Your task to perform on an android device: delete a single message in the gmail app Image 0: 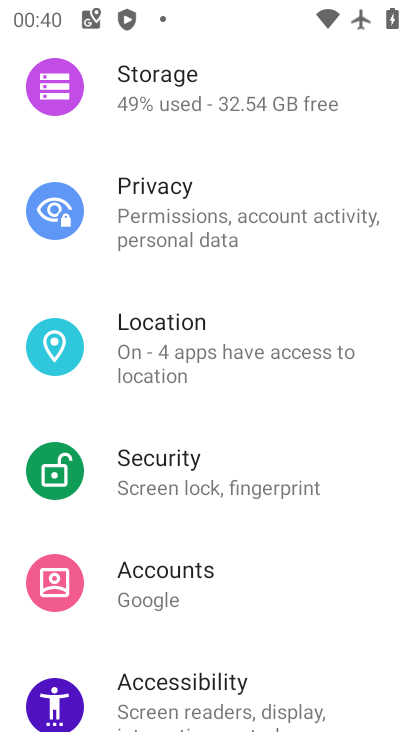
Step 0: press home button
Your task to perform on an android device: delete a single message in the gmail app Image 1: 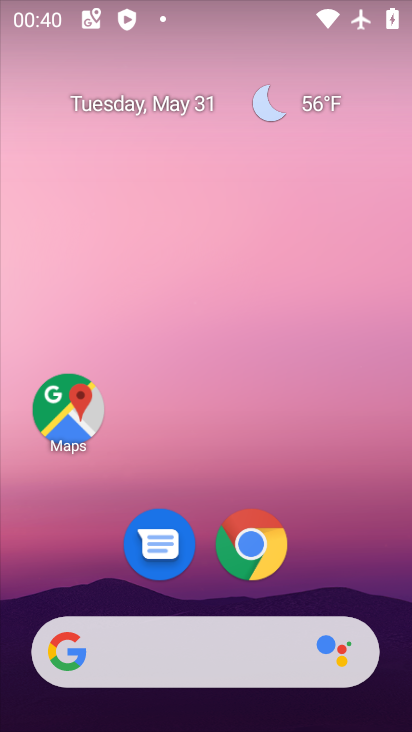
Step 1: drag from (334, 525) to (165, 15)
Your task to perform on an android device: delete a single message in the gmail app Image 2: 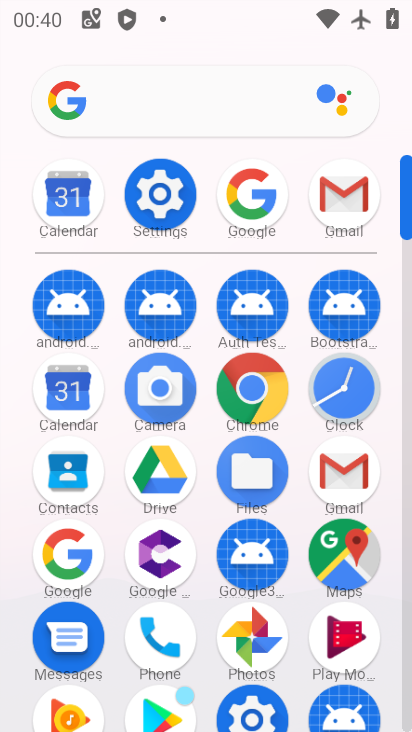
Step 2: click (347, 198)
Your task to perform on an android device: delete a single message in the gmail app Image 3: 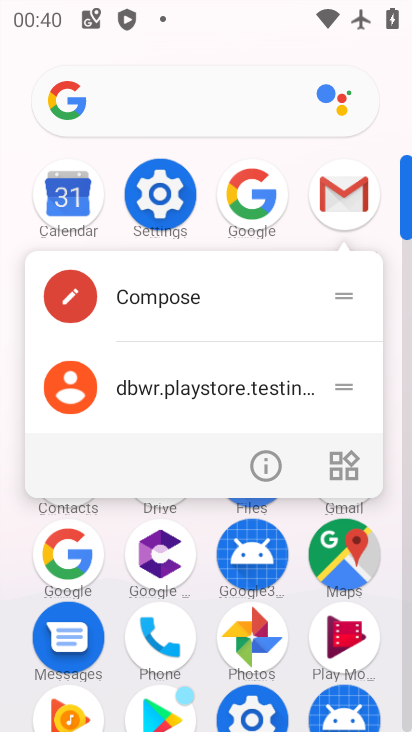
Step 3: click (349, 186)
Your task to perform on an android device: delete a single message in the gmail app Image 4: 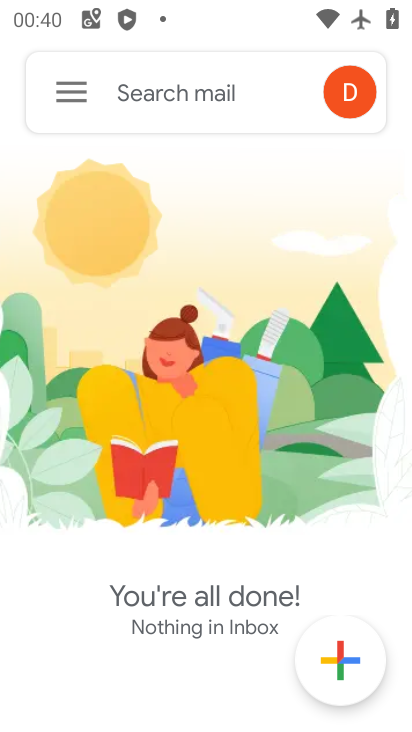
Step 4: click (349, 186)
Your task to perform on an android device: delete a single message in the gmail app Image 5: 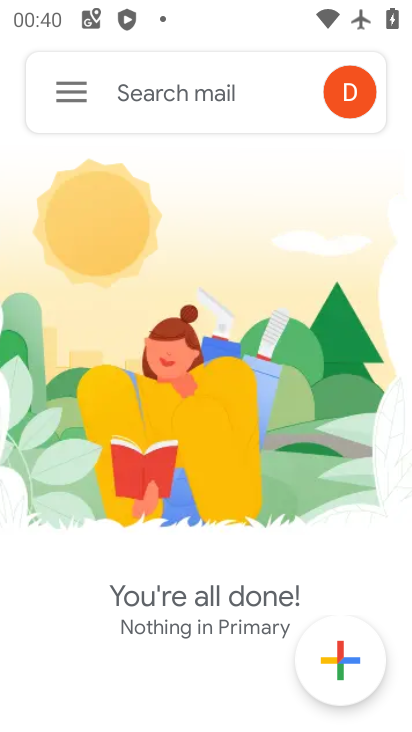
Step 5: click (71, 97)
Your task to perform on an android device: delete a single message in the gmail app Image 6: 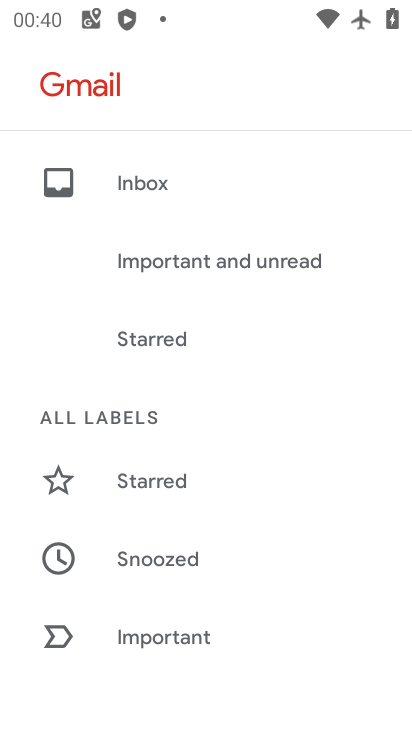
Step 6: drag from (181, 595) to (135, 357)
Your task to perform on an android device: delete a single message in the gmail app Image 7: 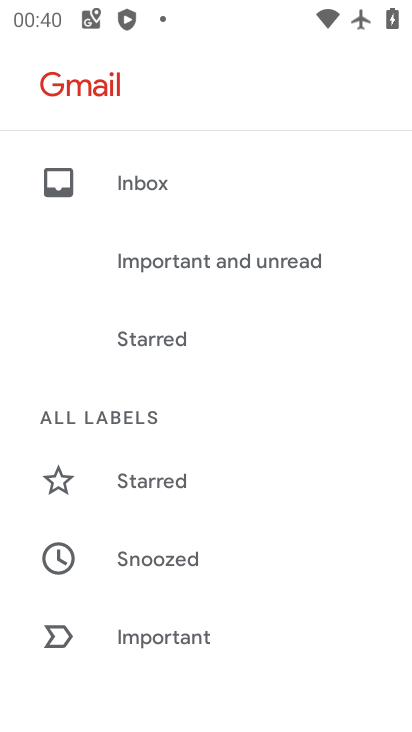
Step 7: drag from (212, 514) to (211, 371)
Your task to perform on an android device: delete a single message in the gmail app Image 8: 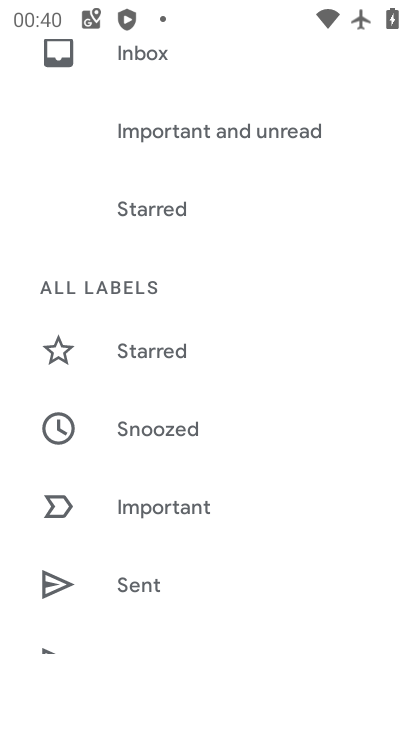
Step 8: drag from (254, 448) to (234, 183)
Your task to perform on an android device: delete a single message in the gmail app Image 9: 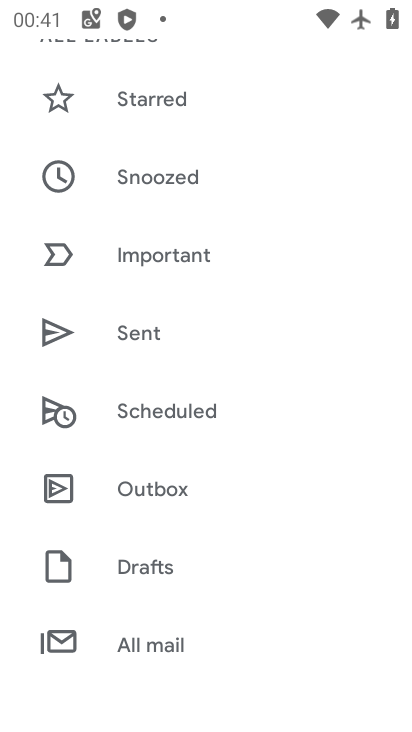
Step 9: drag from (260, 474) to (258, 272)
Your task to perform on an android device: delete a single message in the gmail app Image 10: 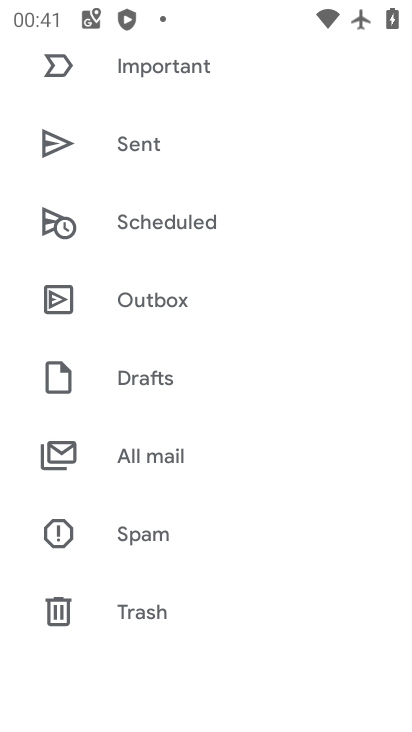
Step 10: click (138, 448)
Your task to perform on an android device: delete a single message in the gmail app Image 11: 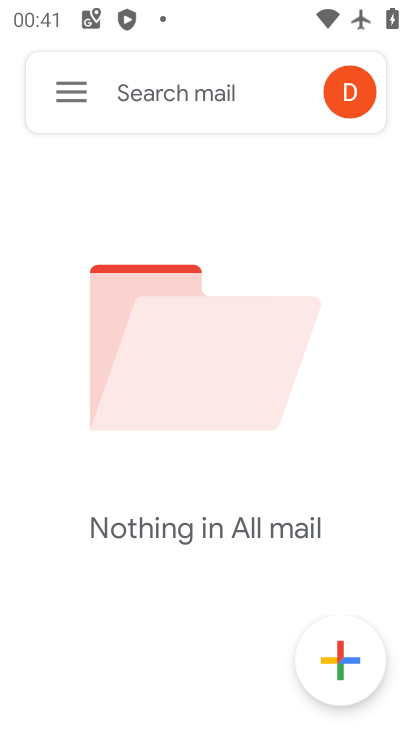
Step 11: task complete